Your task to perform on an android device: change the clock style Image 0: 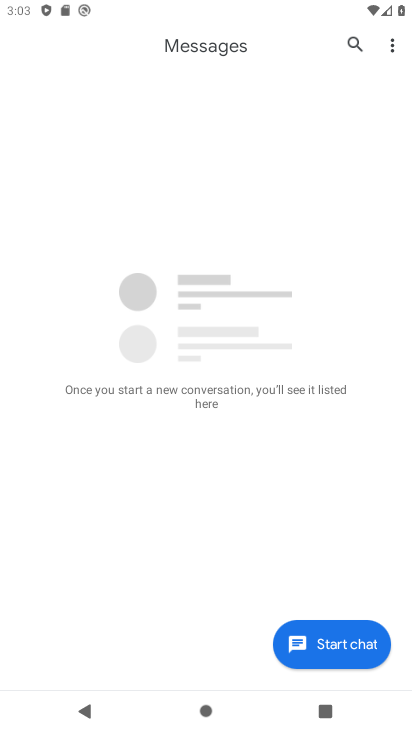
Step 0: press home button
Your task to perform on an android device: change the clock style Image 1: 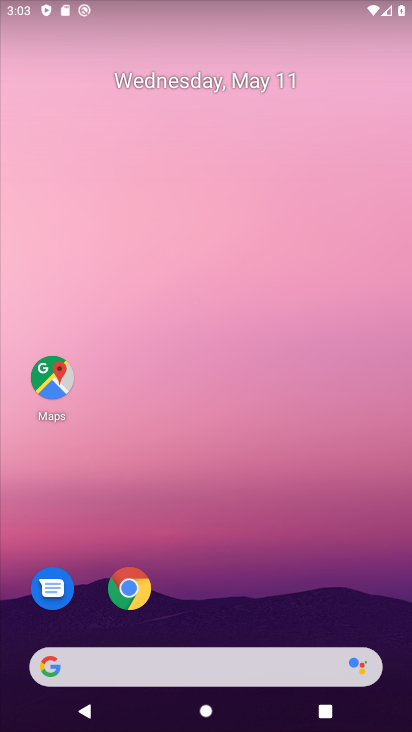
Step 1: drag from (192, 609) to (266, 0)
Your task to perform on an android device: change the clock style Image 2: 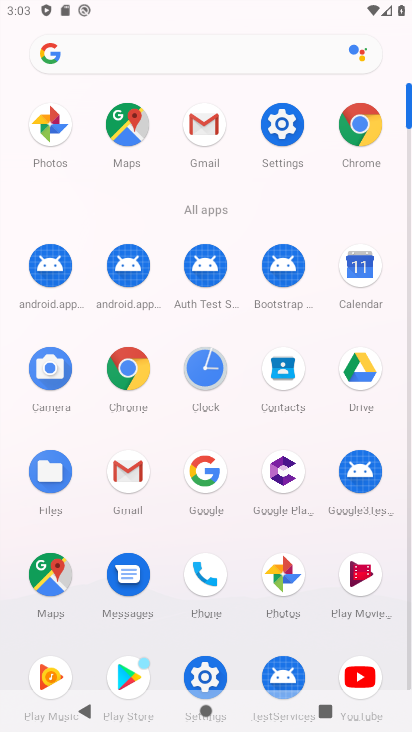
Step 2: click (193, 366)
Your task to perform on an android device: change the clock style Image 3: 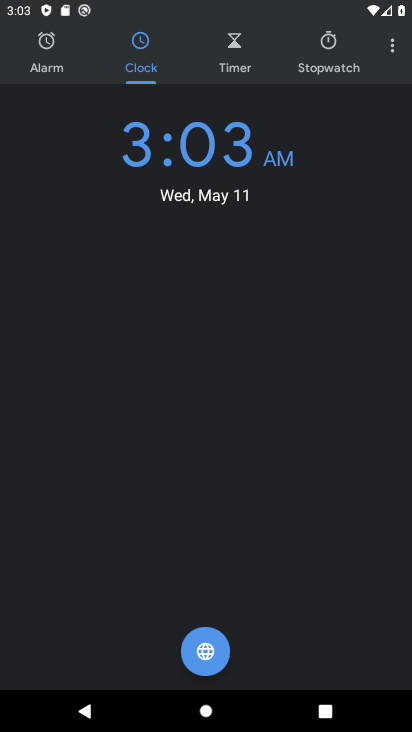
Step 3: click (382, 34)
Your task to perform on an android device: change the clock style Image 4: 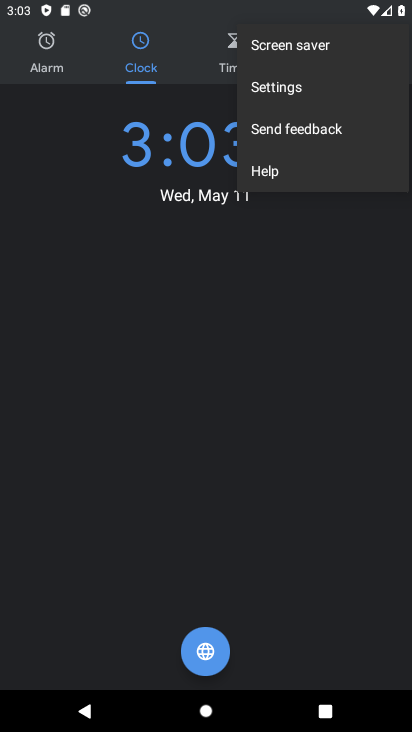
Step 4: click (298, 95)
Your task to perform on an android device: change the clock style Image 5: 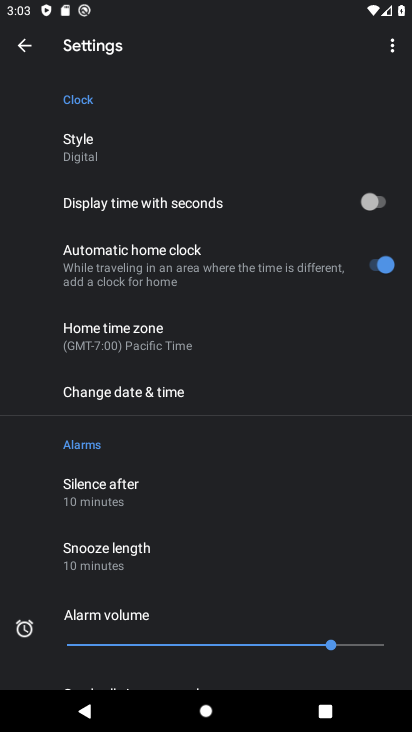
Step 5: click (136, 156)
Your task to perform on an android device: change the clock style Image 6: 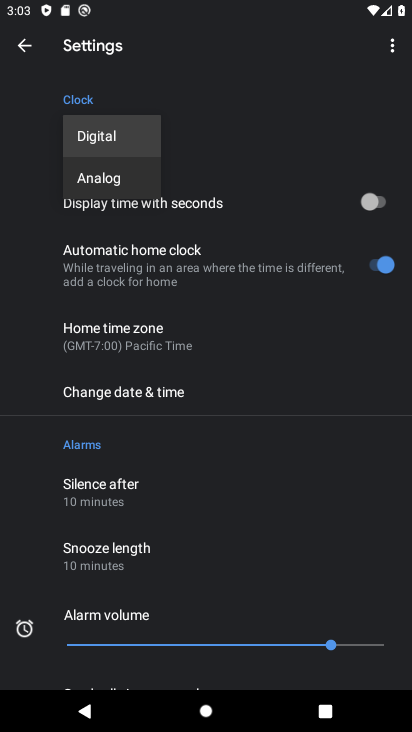
Step 6: click (110, 177)
Your task to perform on an android device: change the clock style Image 7: 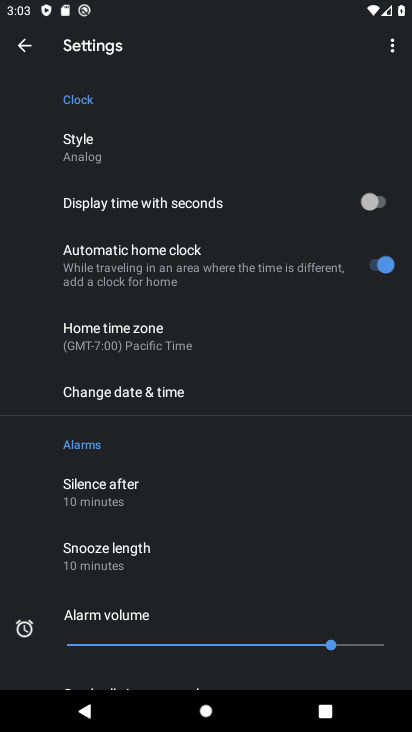
Step 7: task complete